Your task to perform on an android device: Clear the cart on walmart. Add "razer blade" to the cart on walmart, then select checkout. Image 0: 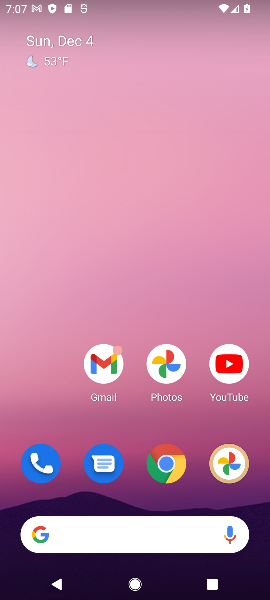
Step 0: click (178, 544)
Your task to perform on an android device: Clear the cart on walmart. Add "razer blade" to the cart on walmart, then select checkout. Image 1: 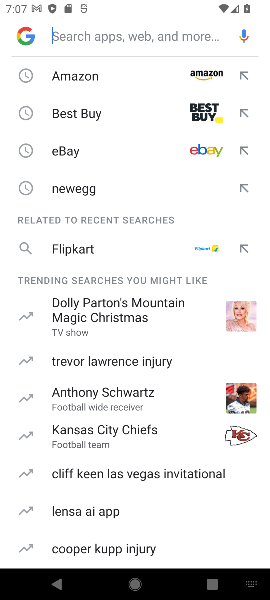
Step 1: type "walmart"
Your task to perform on an android device: Clear the cart on walmart. Add "razer blade" to the cart on walmart, then select checkout. Image 2: 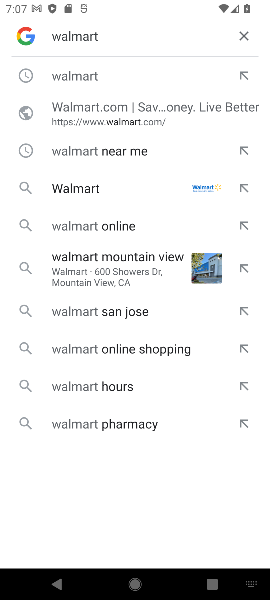
Step 2: click (80, 107)
Your task to perform on an android device: Clear the cart on walmart. Add "razer blade" to the cart on walmart, then select checkout. Image 3: 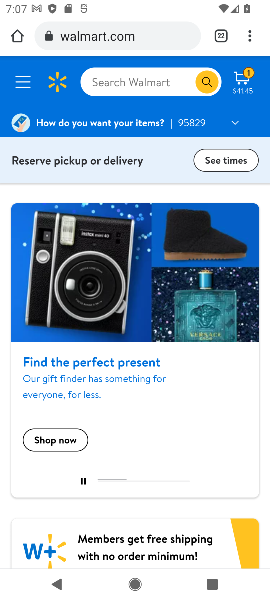
Step 3: click (99, 85)
Your task to perform on an android device: Clear the cart on walmart. Add "razer blade" to the cart on walmart, then select checkout. Image 4: 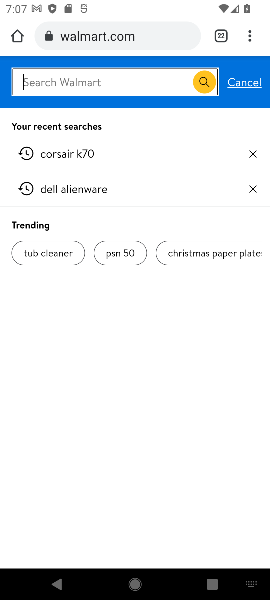
Step 4: type "razerblade"
Your task to perform on an android device: Clear the cart on walmart. Add "razer blade" to the cart on walmart, then select checkout. Image 5: 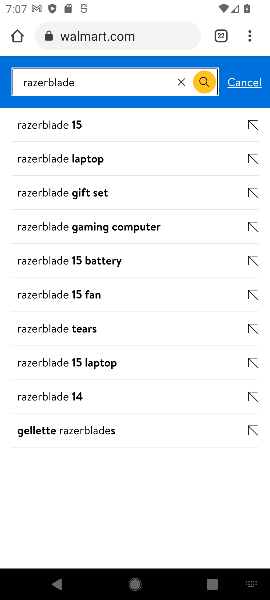
Step 5: click (199, 76)
Your task to perform on an android device: Clear the cart on walmart. Add "razer blade" to the cart on walmart, then select checkout. Image 6: 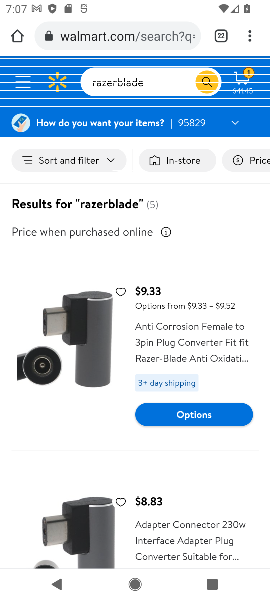
Step 6: click (150, 417)
Your task to perform on an android device: Clear the cart on walmart. Add "razer blade" to the cart on walmart, then select checkout. Image 7: 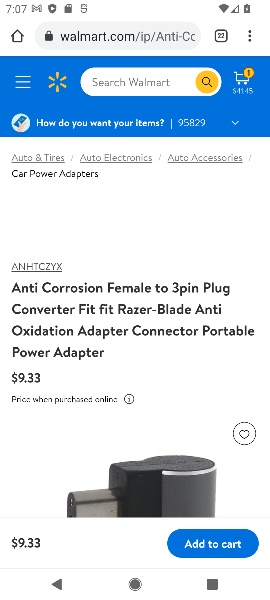
Step 7: click (207, 534)
Your task to perform on an android device: Clear the cart on walmart. Add "razer blade" to the cart on walmart, then select checkout. Image 8: 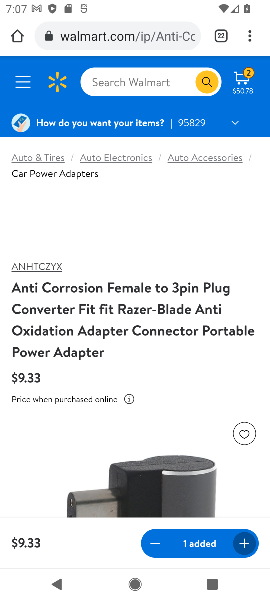
Step 8: task complete